Your task to perform on an android device: open wifi settings Image 0: 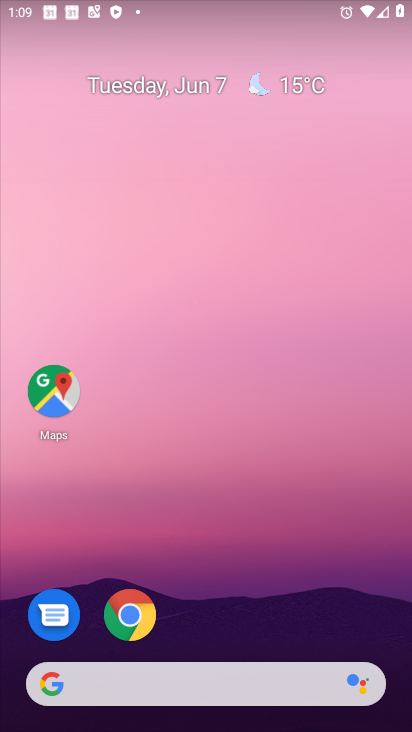
Step 0: drag from (215, 618) to (232, 1)
Your task to perform on an android device: open wifi settings Image 1: 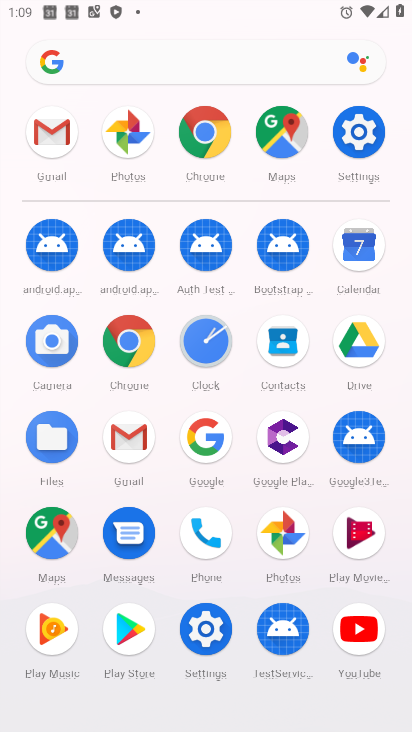
Step 1: click (363, 142)
Your task to perform on an android device: open wifi settings Image 2: 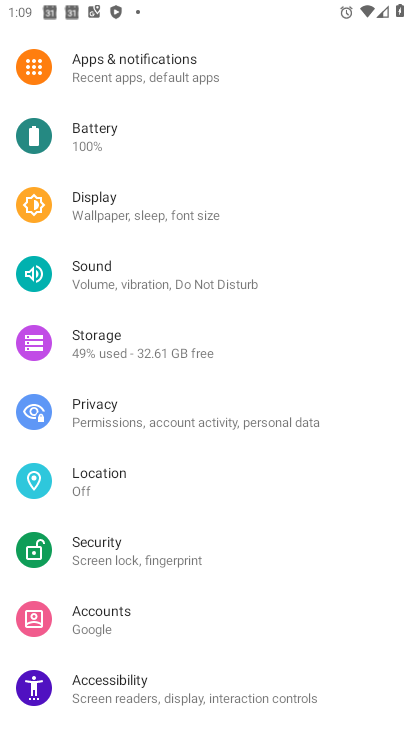
Step 2: drag from (132, 96) to (124, 595)
Your task to perform on an android device: open wifi settings Image 3: 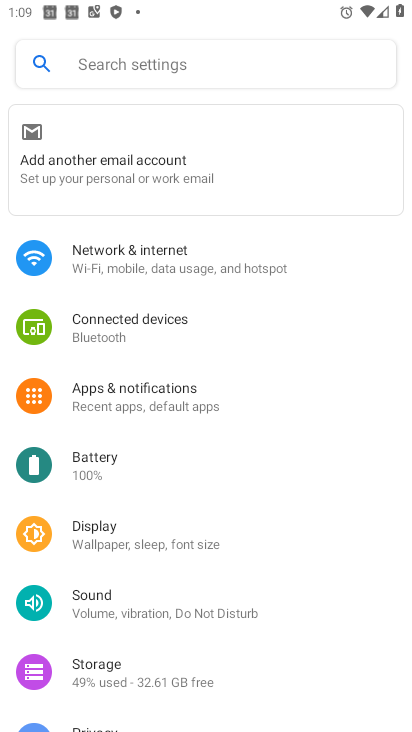
Step 3: click (111, 260)
Your task to perform on an android device: open wifi settings Image 4: 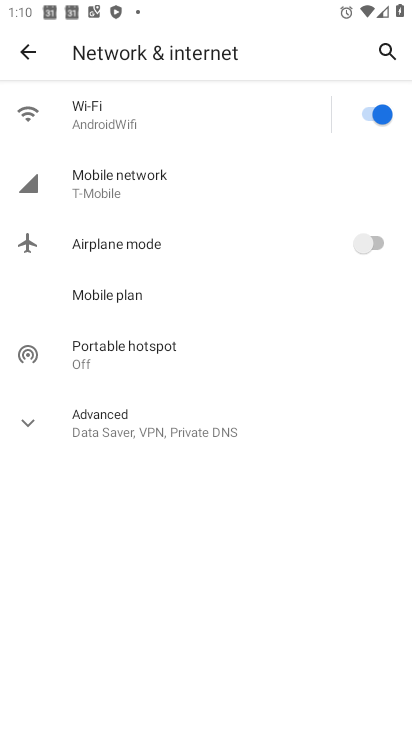
Step 4: click (105, 123)
Your task to perform on an android device: open wifi settings Image 5: 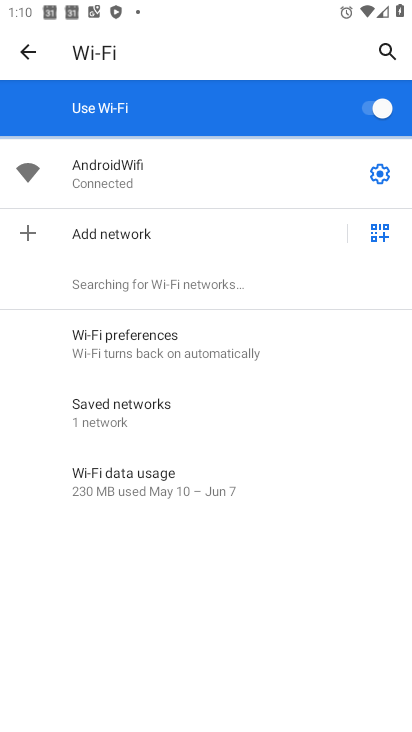
Step 5: task complete